Your task to perform on an android device: turn on location history Image 0: 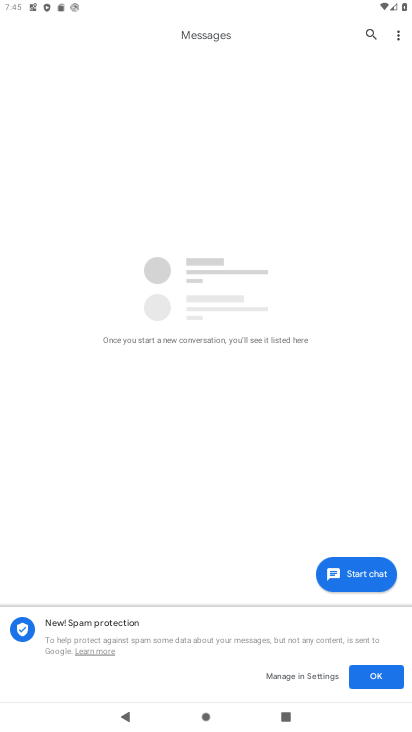
Step 0: press home button
Your task to perform on an android device: turn on location history Image 1: 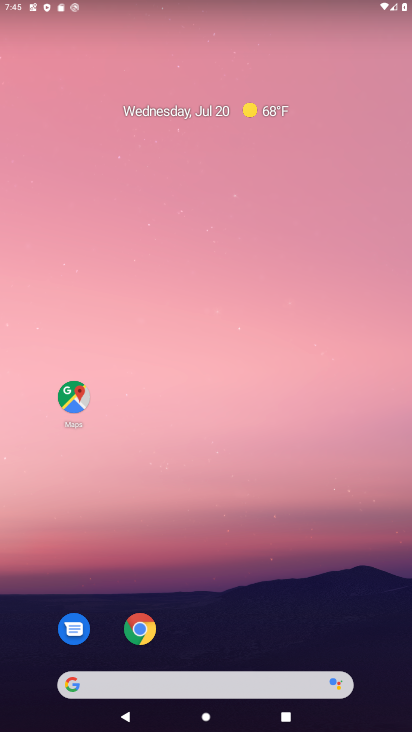
Step 1: drag from (359, 606) to (378, 81)
Your task to perform on an android device: turn on location history Image 2: 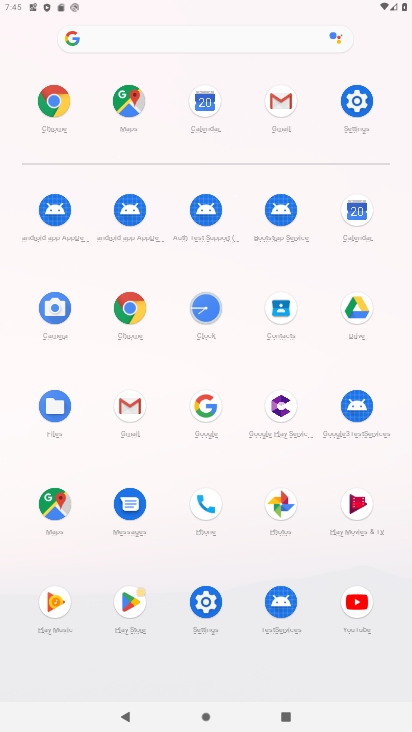
Step 2: click (356, 103)
Your task to perform on an android device: turn on location history Image 3: 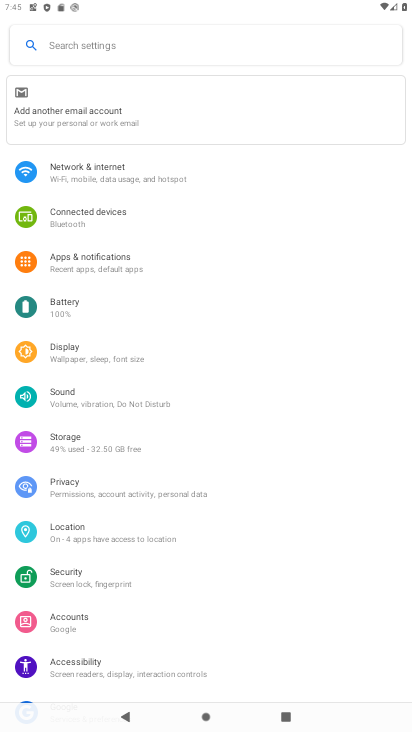
Step 3: drag from (349, 508) to (359, 401)
Your task to perform on an android device: turn on location history Image 4: 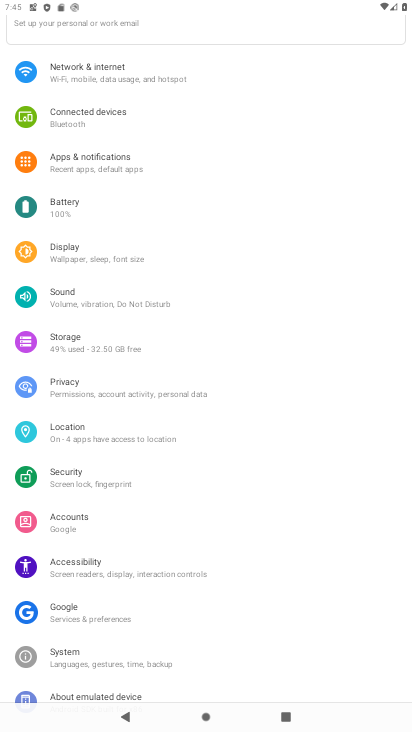
Step 4: drag from (309, 531) to (302, 336)
Your task to perform on an android device: turn on location history Image 5: 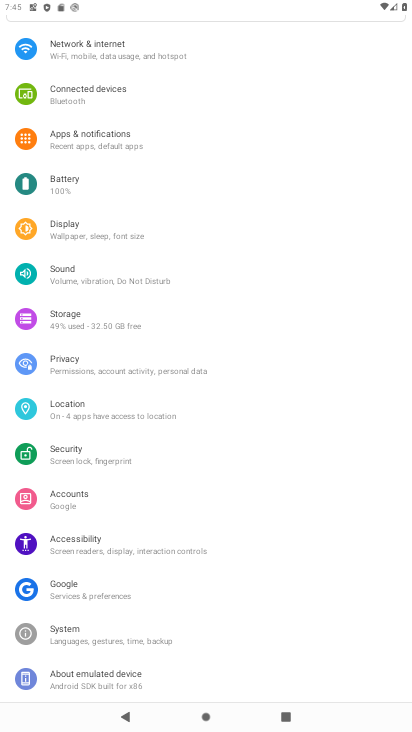
Step 5: drag from (314, 319) to (317, 411)
Your task to perform on an android device: turn on location history Image 6: 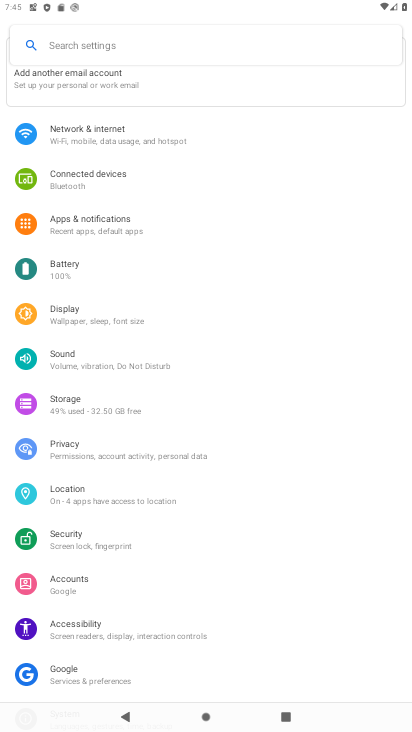
Step 6: drag from (314, 336) to (314, 504)
Your task to perform on an android device: turn on location history Image 7: 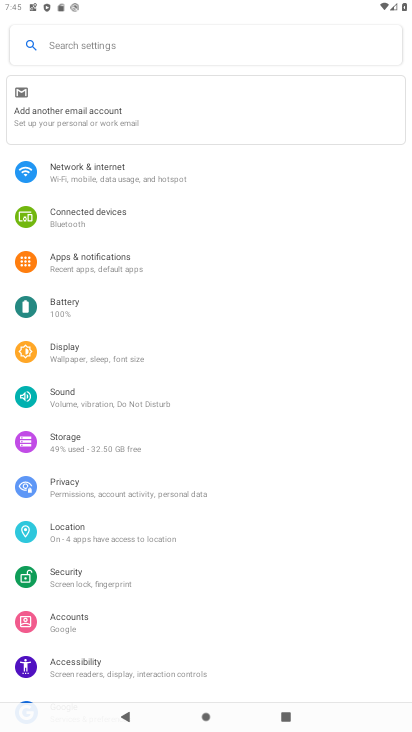
Step 7: click (185, 540)
Your task to perform on an android device: turn on location history Image 8: 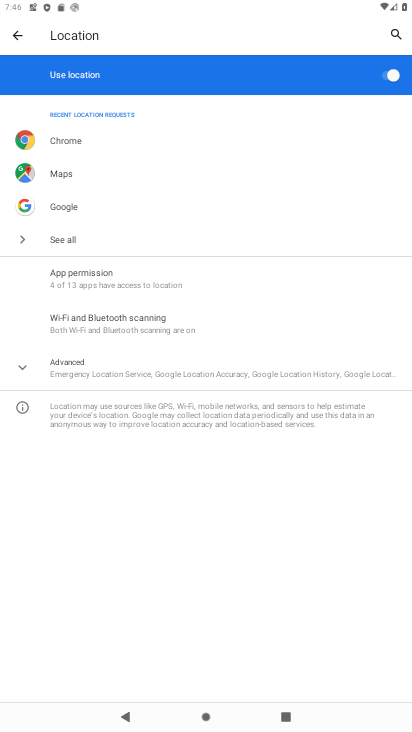
Step 8: click (215, 376)
Your task to perform on an android device: turn on location history Image 9: 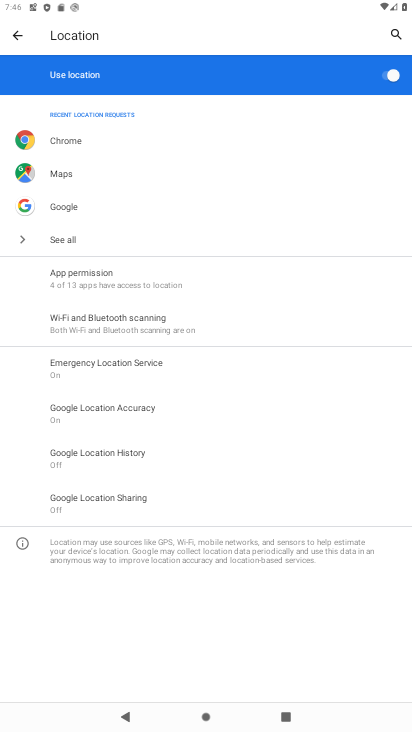
Step 9: click (98, 459)
Your task to perform on an android device: turn on location history Image 10: 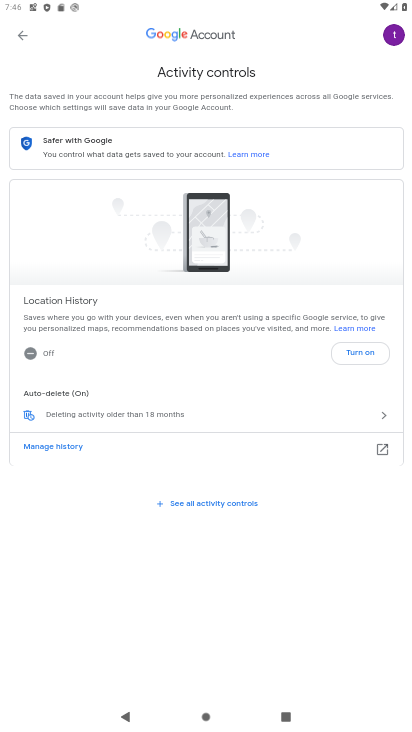
Step 10: click (373, 350)
Your task to perform on an android device: turn on location history Image 11: 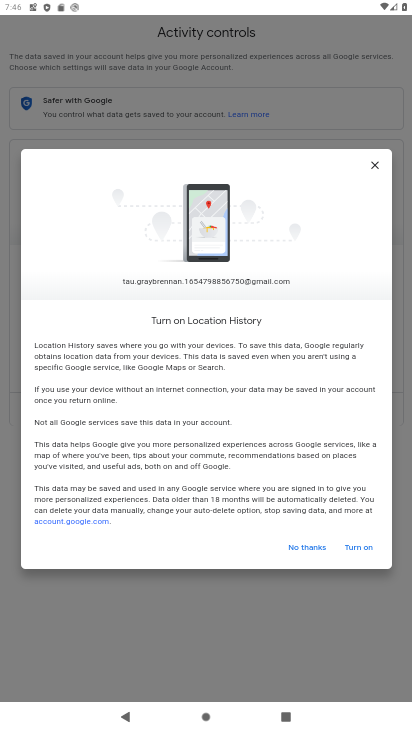
Step 11: click (358, 543)
Your task to perform on an android device: turn on location history Image 12: 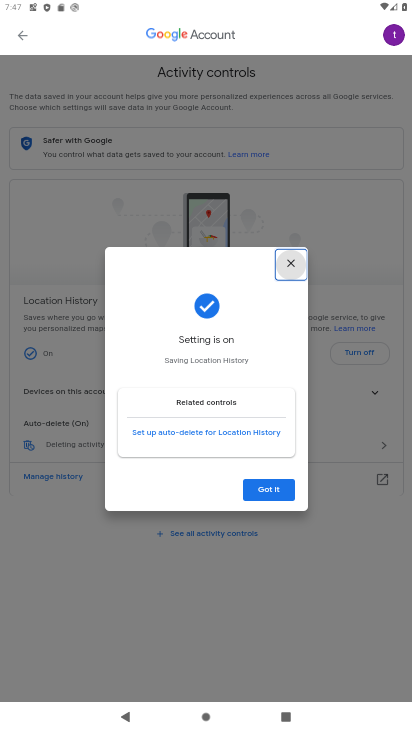
Step 12: task complete